Your task to perform on an android device: change the clock display to analog Image 0: 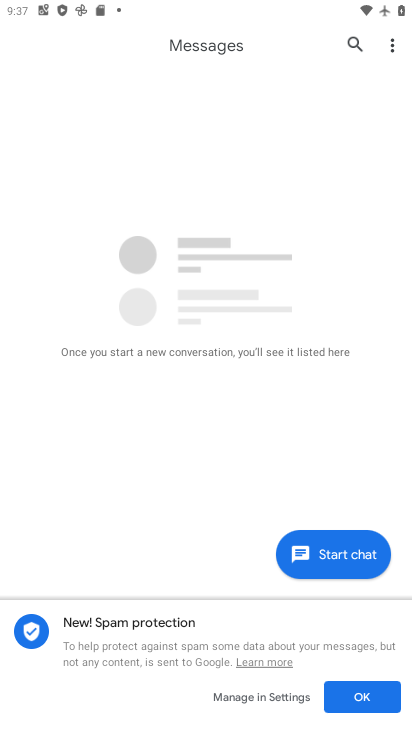
Step 0: click (240, 641)
Your task to perform on an android device: change the clock display to analog Image 1: 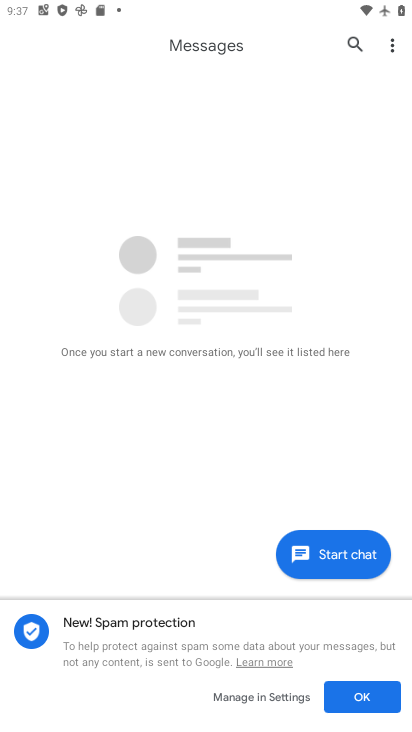
Step 1: press home button
Your task to perform on an android device: change the clock display to analog Image 2: 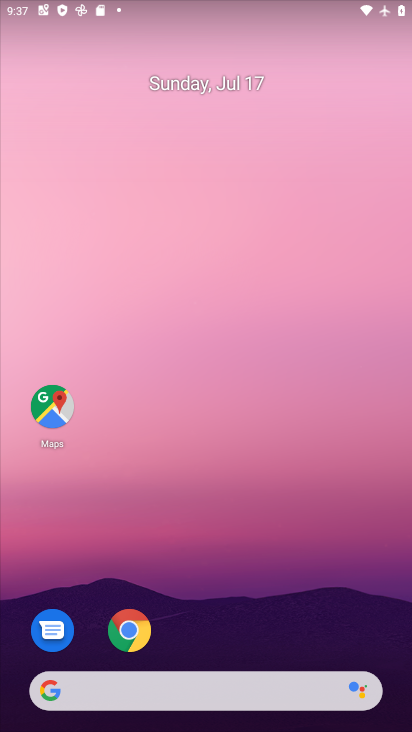
Step 2: drag from (242, 640) to (266, 254)
Your task to perform on an android device: change the clock display to analog Image 3: 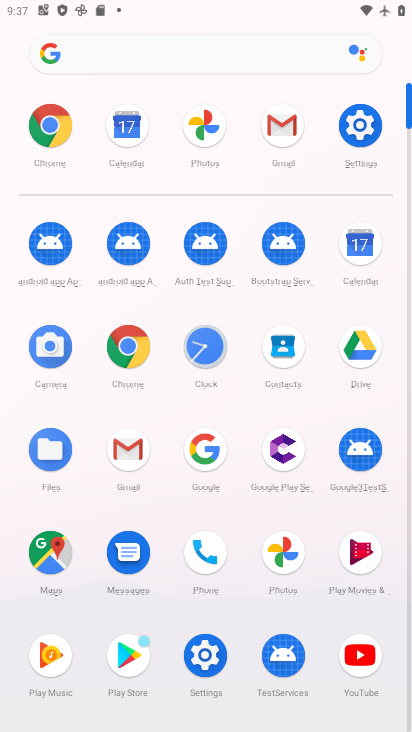
Step 3: click (359, 124)
Your task to perform on an android device: change the clock display to analog Image 4: 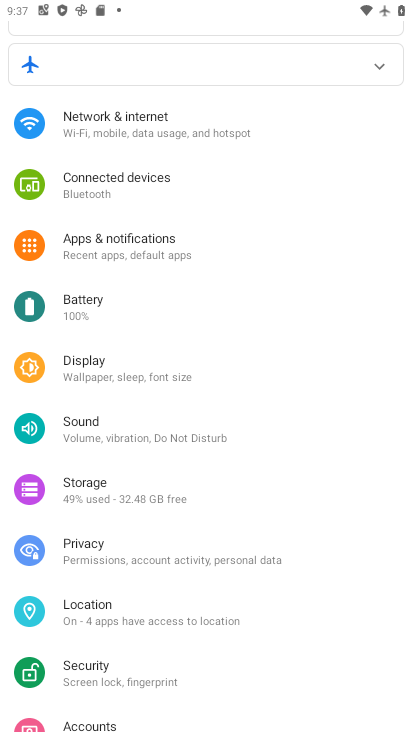
Step 4: click (159, 379)
Your task to perform on an android device: change the clock display to analog Image 5: 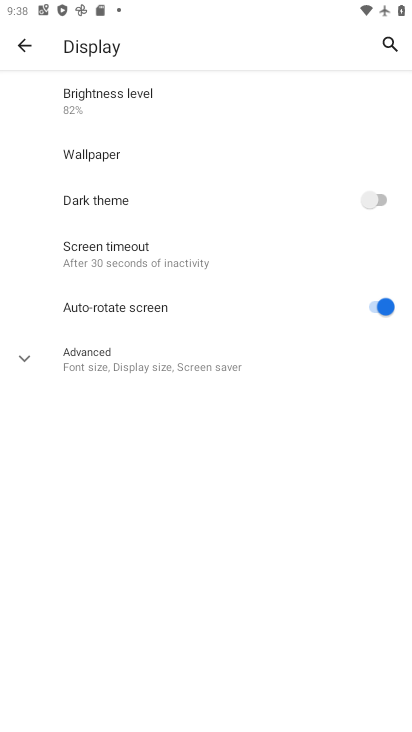
Step 5: press home button
Your task to perform on an android device: change the clock display to analog Image 6: 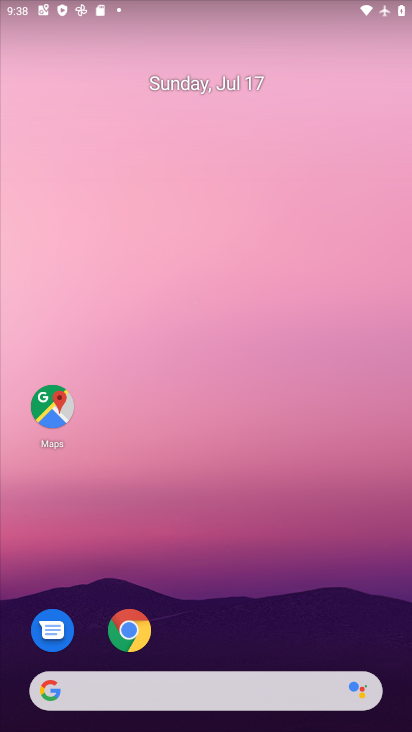
Step 6: drag from (264, 666) to (292, 317)
Your task to perform on an android device: change the clock display to analog Image 7: 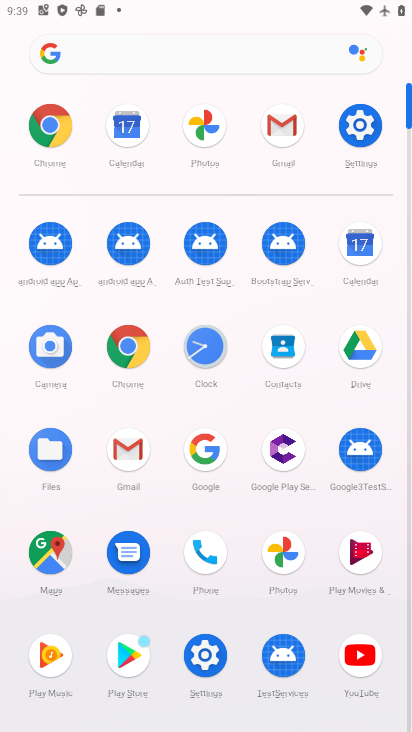
Step 7: click (209, 347)
Your task to perform on an android device: change the clock display to analog Image 8: 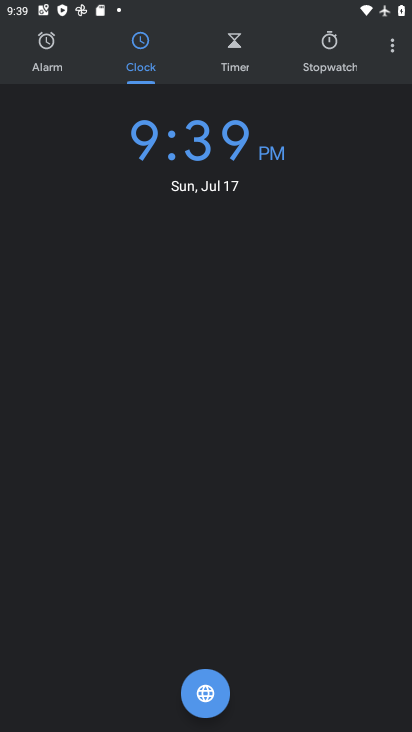
Step 8: click (382, 56)
Your task to perform on an android device: change the clock display to analog Image 9: 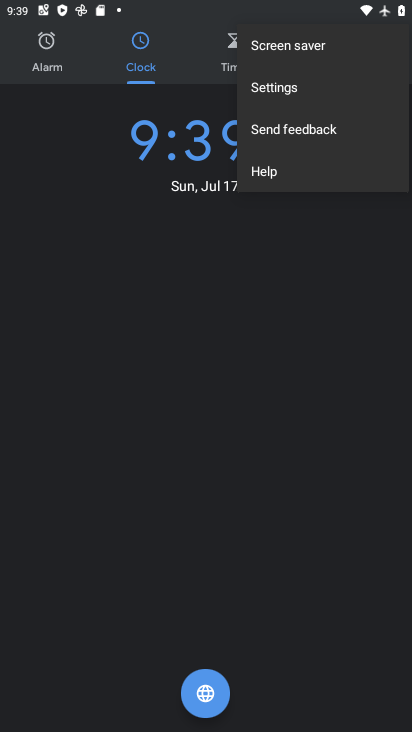
Step 9: click (280, 91)
Your task to perform on an android device: change the clock display to analog Image 10: 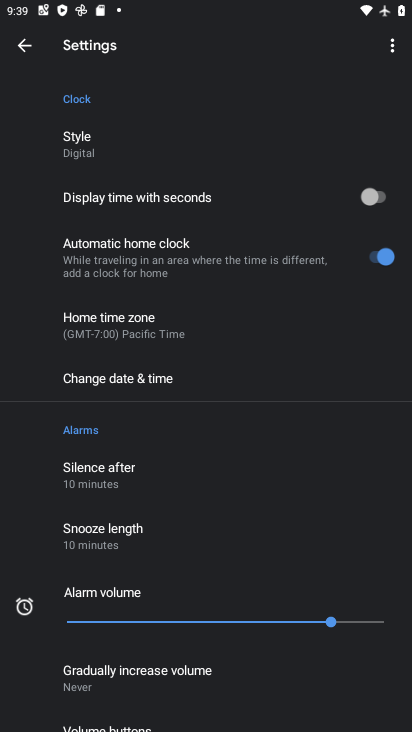
Step 10: click (127, 152)
Your task to perform on an android device: change the clock display to analog Image 11: 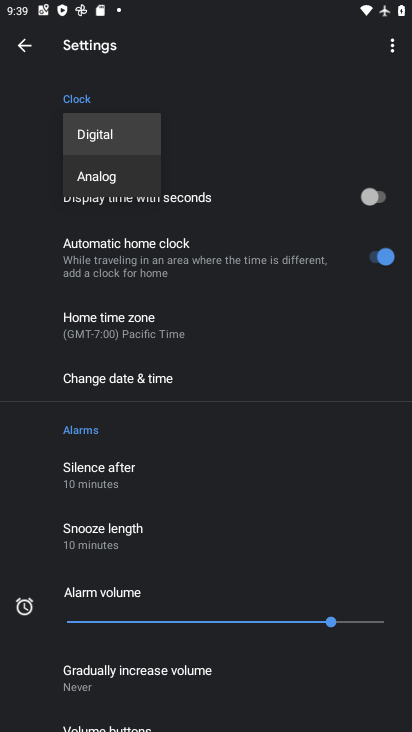
Step 11: click (117, 175)
Your task to perform on an android device: change the clock display to analog Image 12: 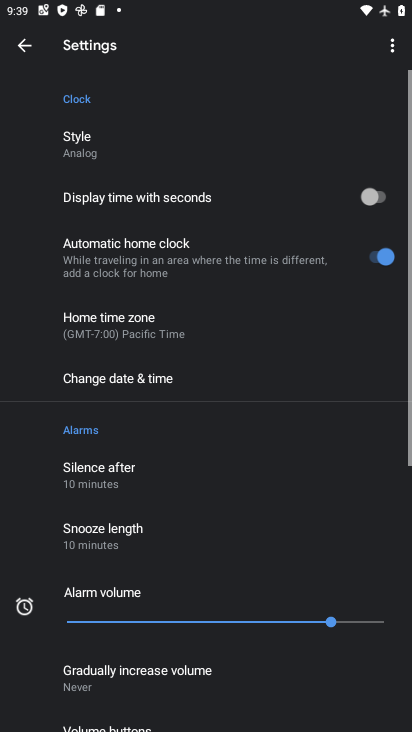
Step 12: task complete